Your task to perform on an android device: Is it going to rain this weekend? Image 0: 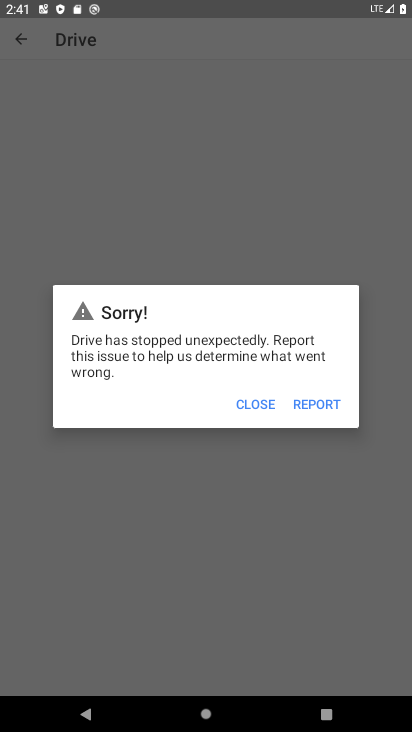
Step 0: press home button
Your task to perform on an android device: Is it going to rain this weekend? Image 1: 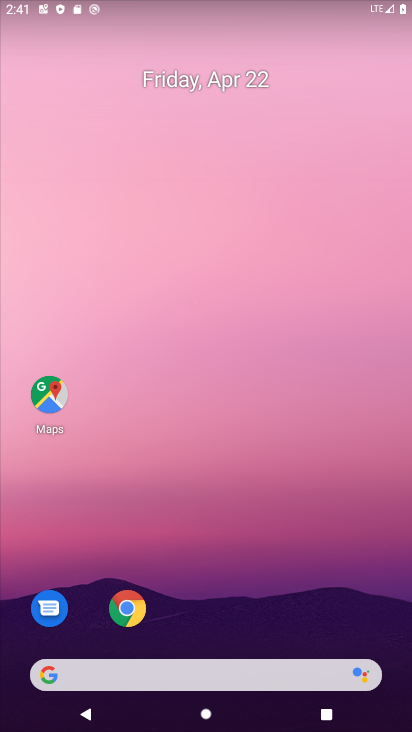
Step 1: drag from (202, 696) to (187, 174)
Your task to perform on an android device: Is it going to rain this weekend? Image 2: 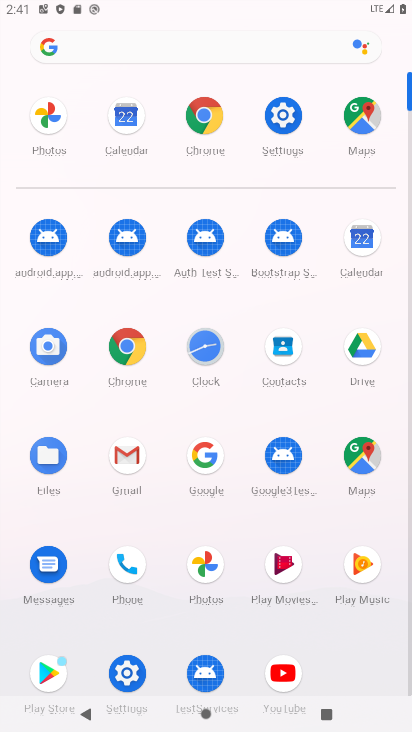
Step 2: click (148, 48)
Your task to perform on an android device: Is it going to rain this weekend? Image 3: 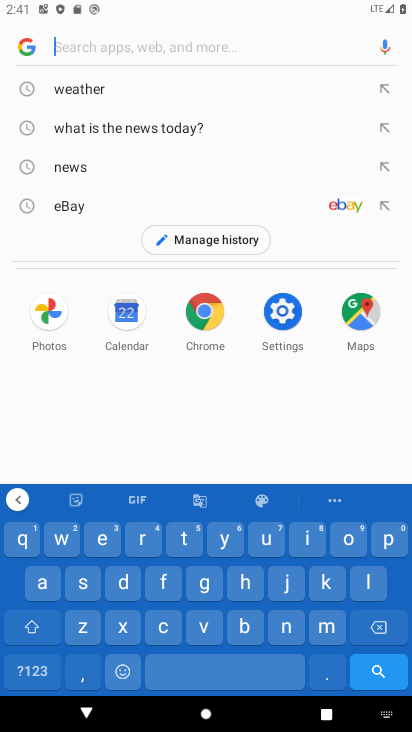
Step 3: click (95, 91)
Your task to perform on an android device: Is it going to rain this weekend? Image 4: 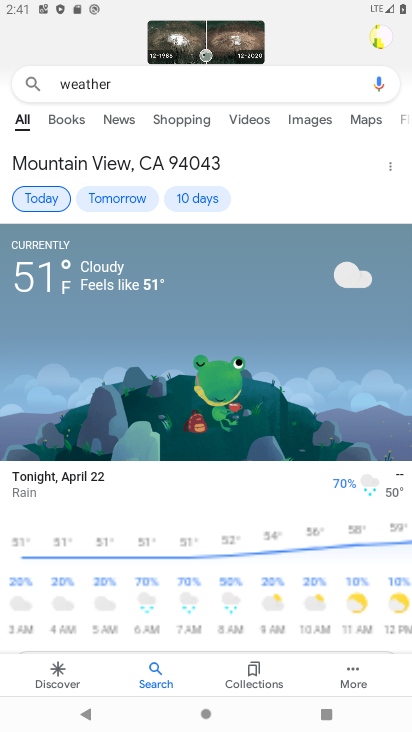
Step 4: click (200, 191)
Your task to perform on an android device: Is it going to rain this weekend? Image 5: 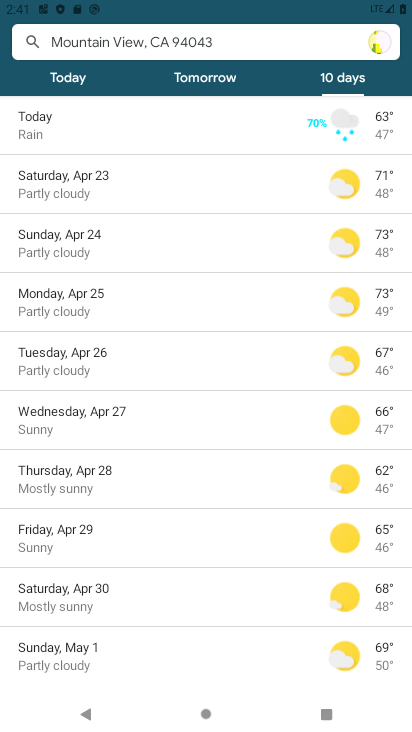
Step 5: task complete